Your task to perform on an android device: allow notifications from all sites in the chrome app Image 0: 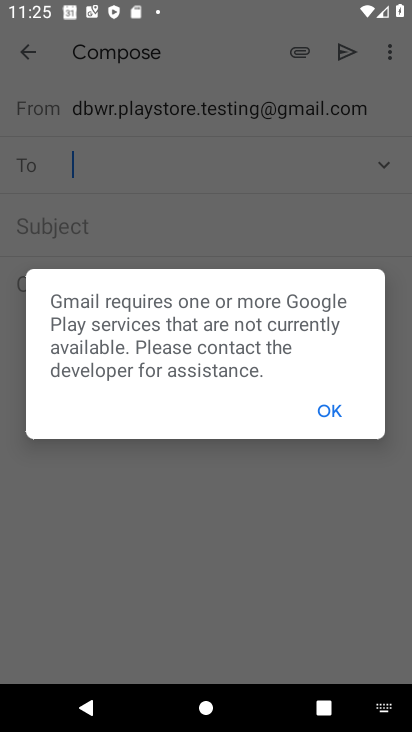
Step 0: press home button
Your task to perform on an android device: allow notifications from all sites in the chrome app Image 1: 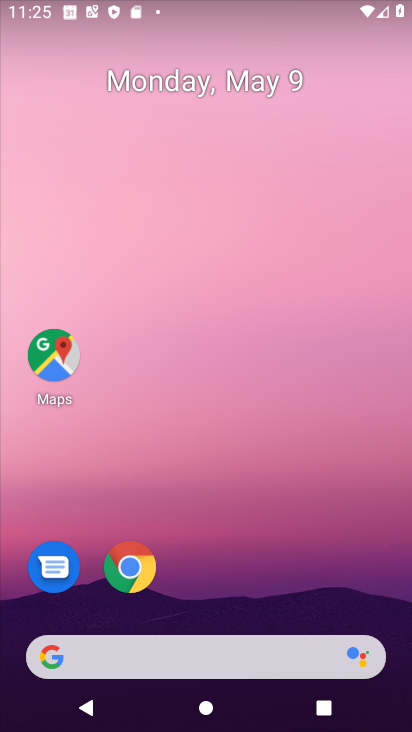
Step 1: click (124, 558)
Your task to perform on an android device: allow notifications from all sites in the chrome app Image 2: 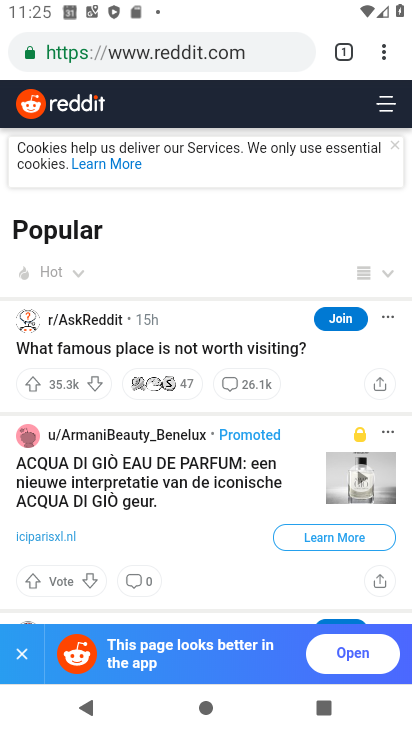
Step 2: drag from (377, 50) to (263, 625)
Your task to perform on an android device: allow notifications from all sites in the chrome app Image 3: 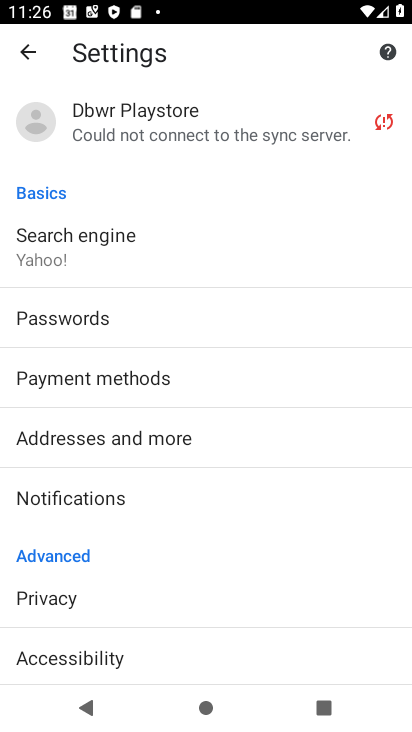
Step 3: drag from (154, 564) to (124, 87)
Your task to perform on an android device: allow notifications from all sites in the chrome app Image 4: 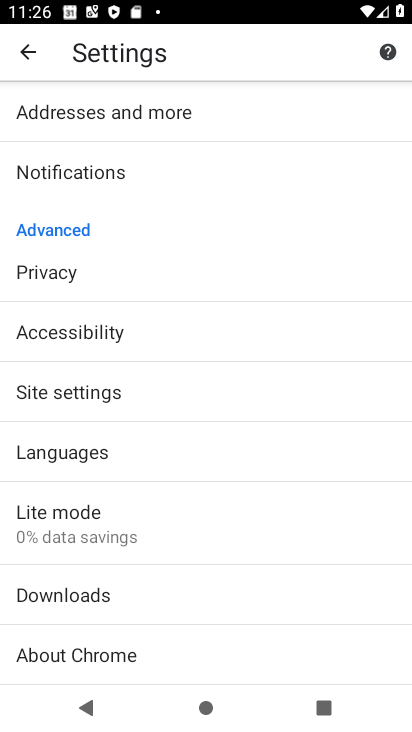
Step 4: click (79, 405)
Your task to perform on an android device: allow notifications from all sites in the chrome app Image 5: 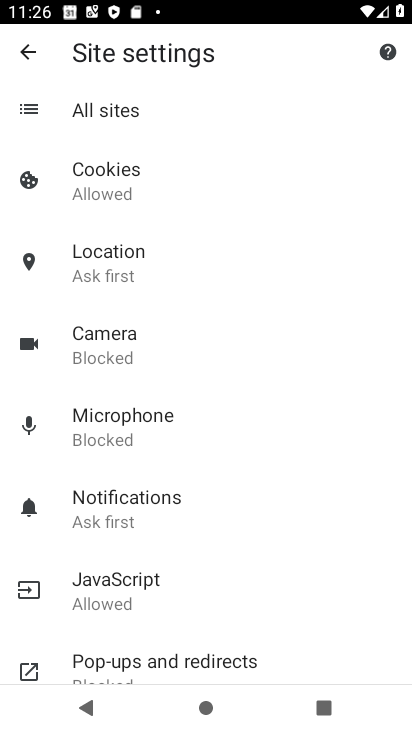
Step 5: click (139, 518)
Your task to perform on an android device: allow notifications from all sites in the chrome app Image 6: 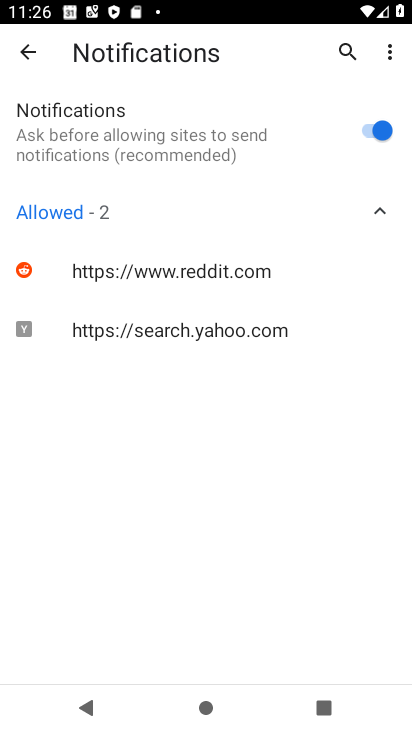
Step 6: task complete